Your task to perform on an android device: Open calendar and show me the third week of next month Image 0: 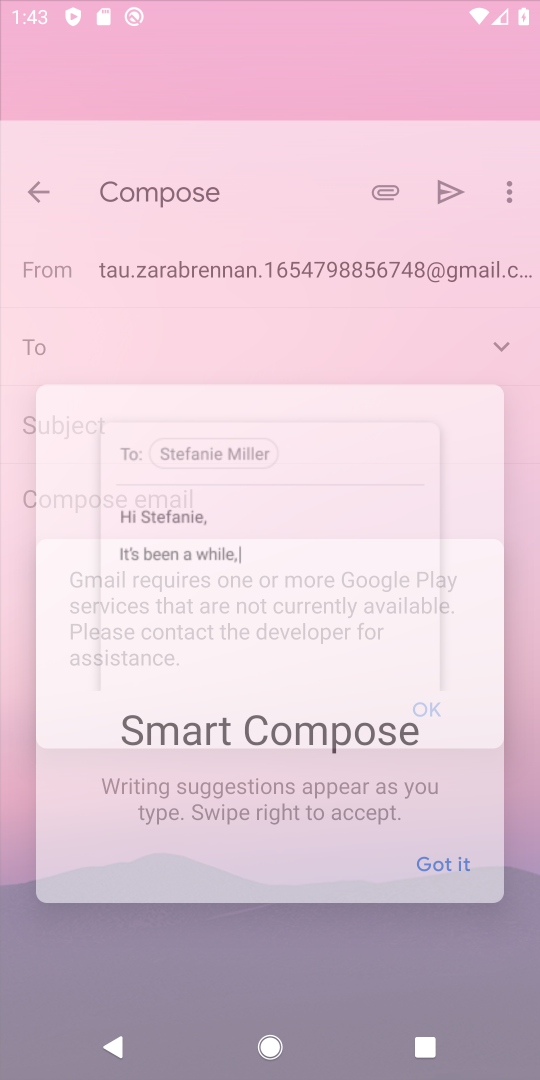
Step 0: click (504, 84)
Your task to perform on an android device: Open calendar and show me the third week of next month Image 1: 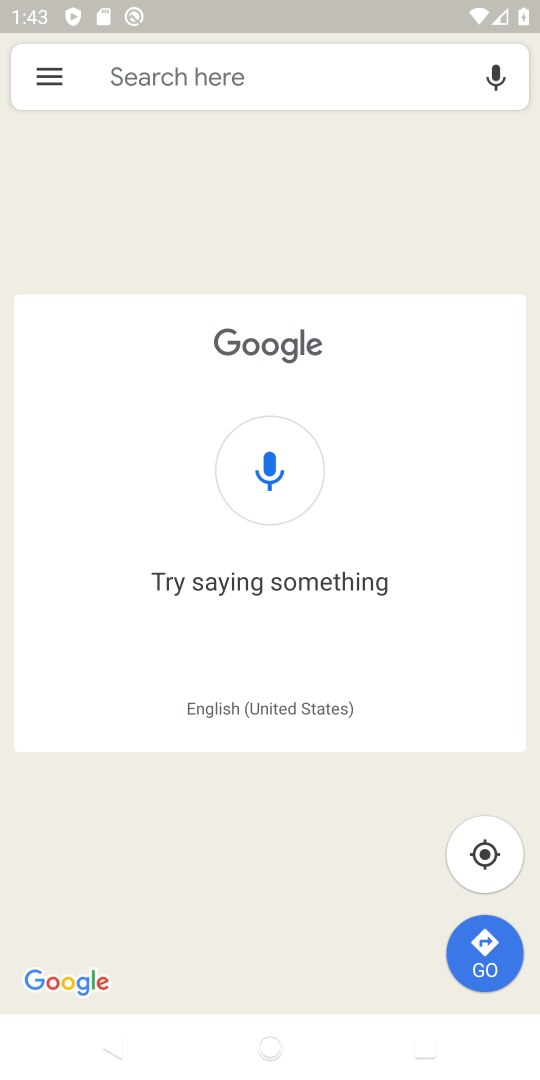
Step 1: click (49, 78)
Your task to perform on an android device: Open calendar and show me the third week of next month Image 2: 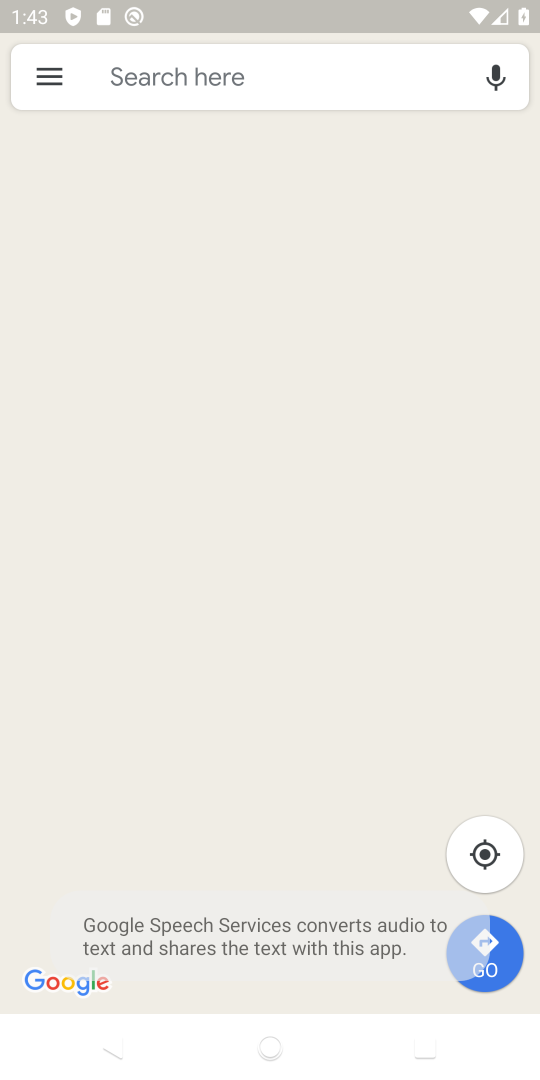
Step 2: press home button
Your task to perform on an android device: Open calendar and show me the third week of next month Image 3: 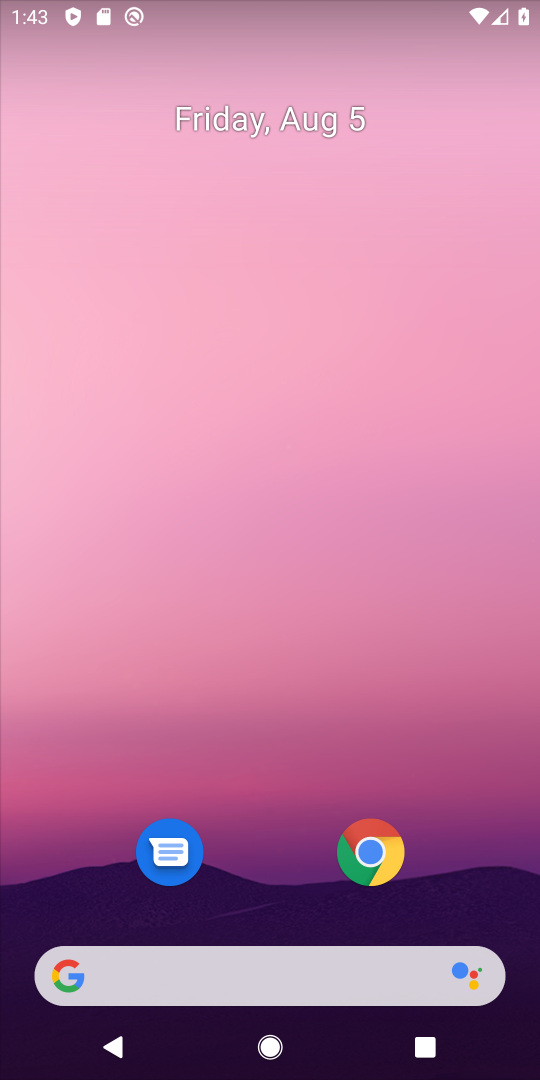
Step 3: drag from (247, 886) to (279, 250)
Your task to perform on an android device: Open calendar and show me the third week of next month Image 4: 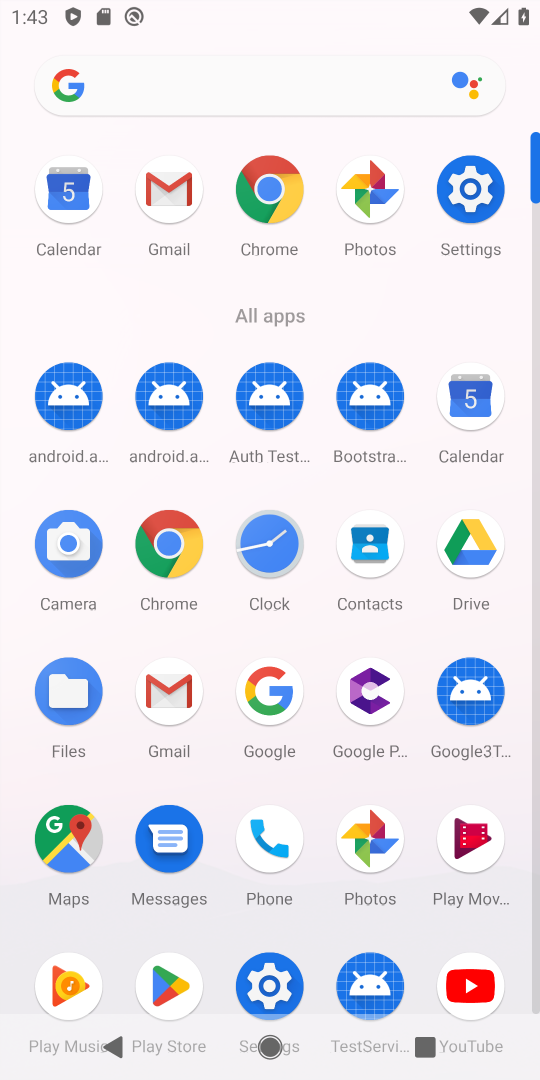
Step 4: click (474, 384)
Your task to perform on an android device: Open calendar and show me the third week of next month Image 5: 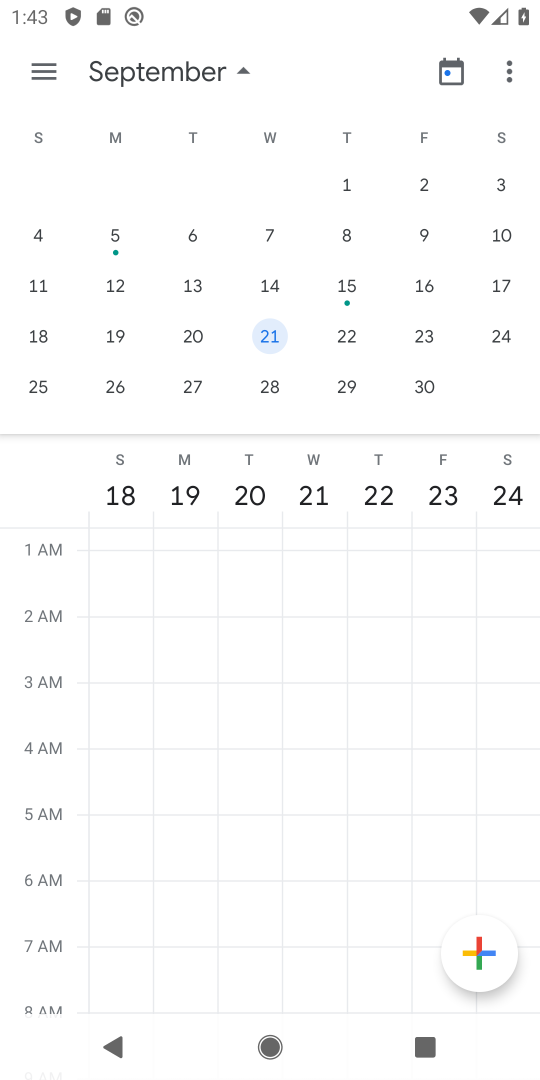
Step 5: click (263, 279)
Your task to perform on an android device: Open calendar and show me the third week of next month Image 6: 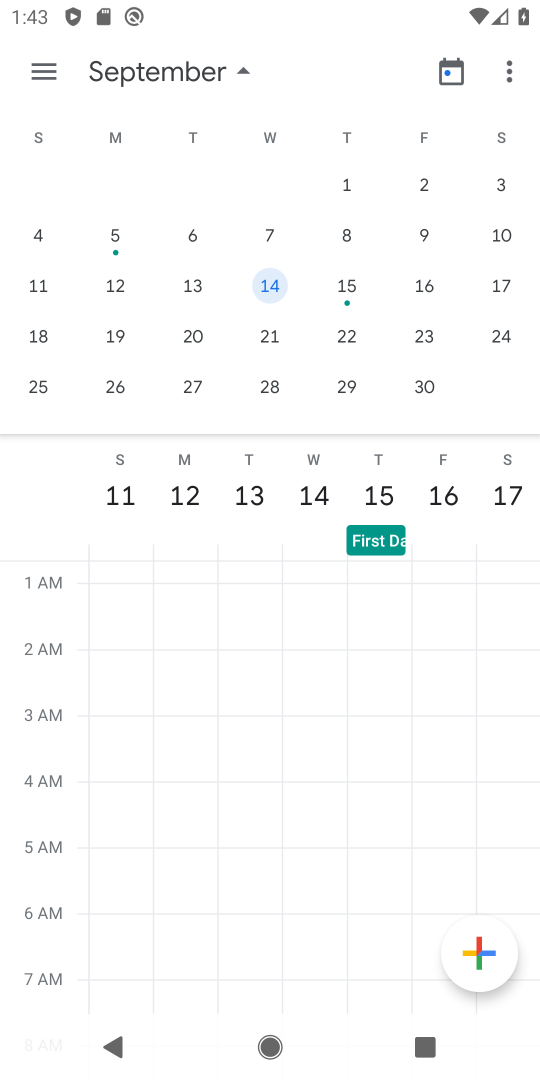
Step 6: task complete